Your task to perform on an android device: turn on bluetooth scan Image 0: 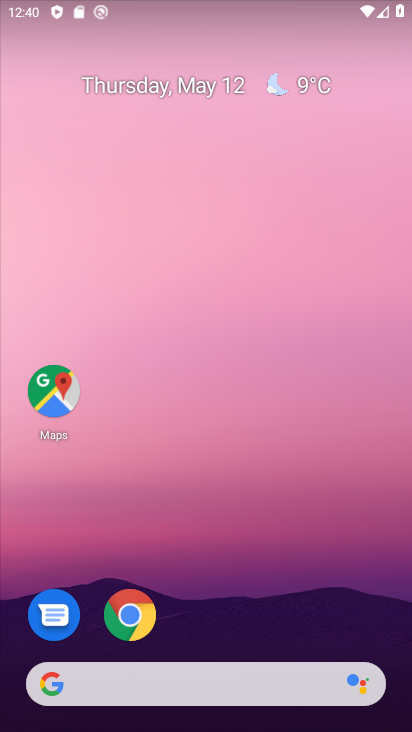
Step 0: drag from (341, 589) to (311, 34)
Your task to perform on an android device: turn on bluetooth scan Image 1: 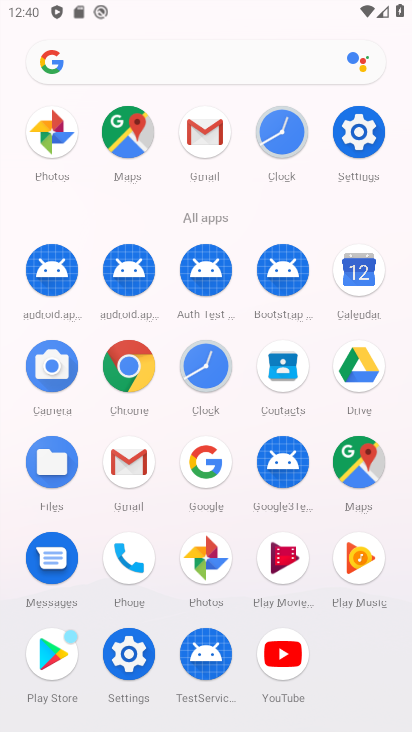
Step 1: click (359, 129)
Your task to perform on an android device: turn on bluetooth scan Image 2: 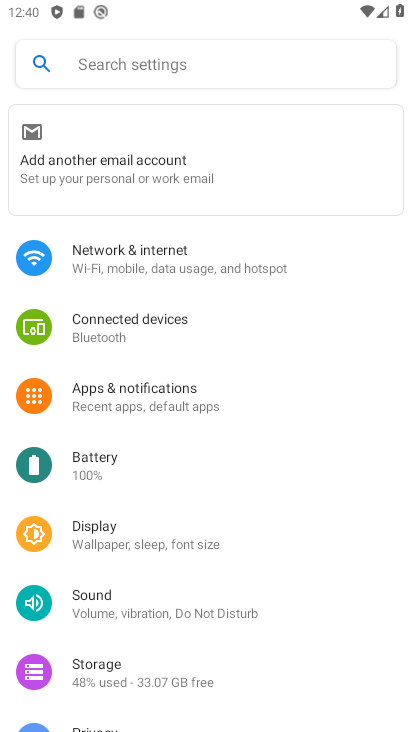
Step 2: drag from (271, 683) to (352, 136)
Your task to perform on an android device: turn on bluetooth scan Image 3: 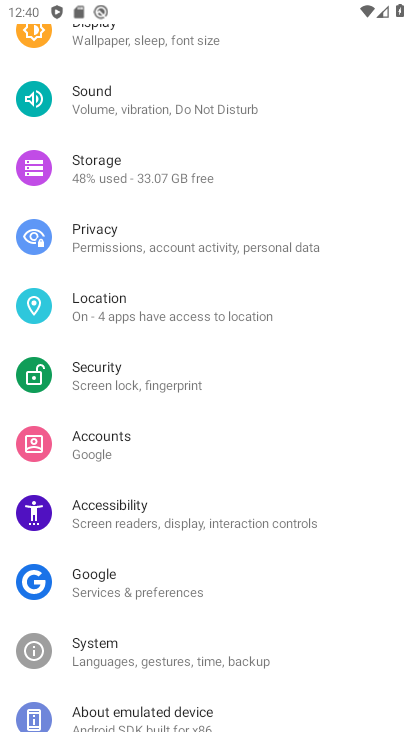
Step 3: drag from (216, 675) to (248, 716)
Your task to perform on an android device: turn on bluetooth scan Image 4: 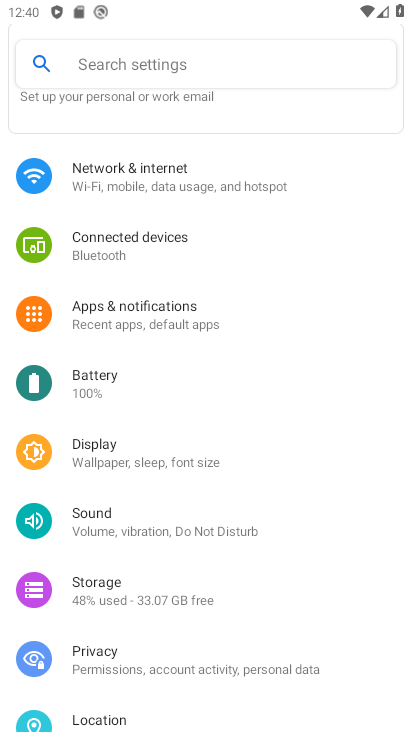
Step 4: click (135, 722)
Your task to perform on an android device: turn on bluetooth scan Image 5: 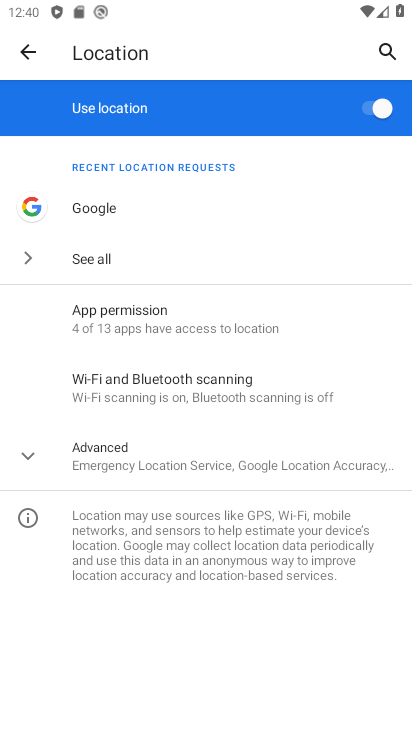
Step 5: click (209, 388)
Your task to perform on an android device: turn on bluetooth scan Image 6: 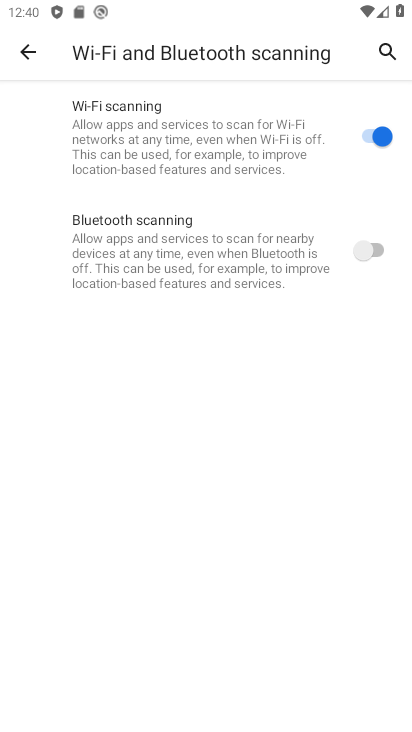
Step 6: click (376, 249)
Your task to perform on an android device: turn on bluetooth scan Image 7: 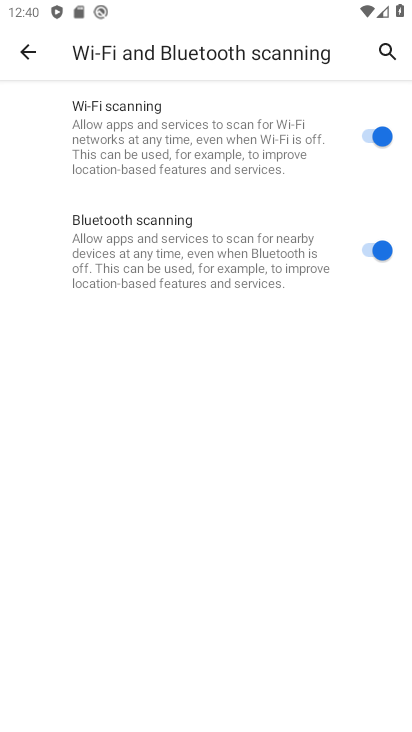
Step 7: task complete